Your task to perform on an android device: check battery use Image 0: 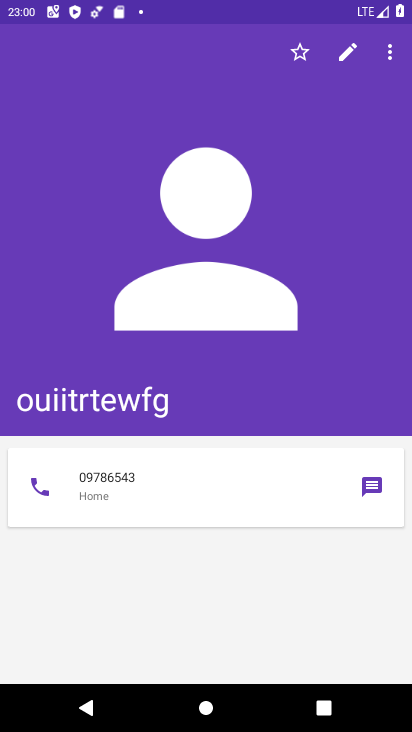
Step 0: press home button
Your task to perform on an android device: check battery use Image 1: 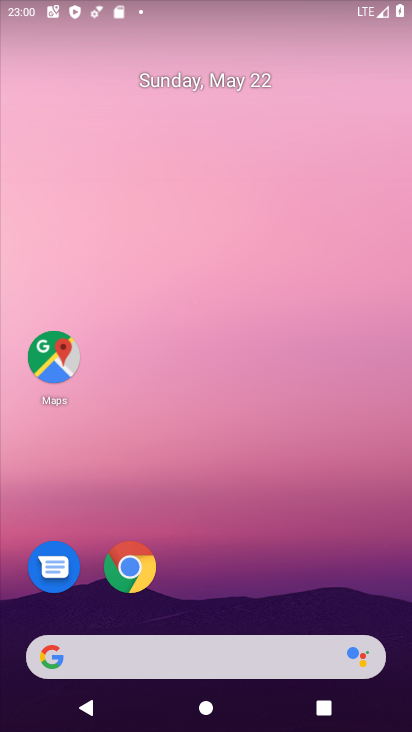
Step 1: drag from (364, 603) to (82, 4)
Your task to perform on an android device: check battery use Image 2: 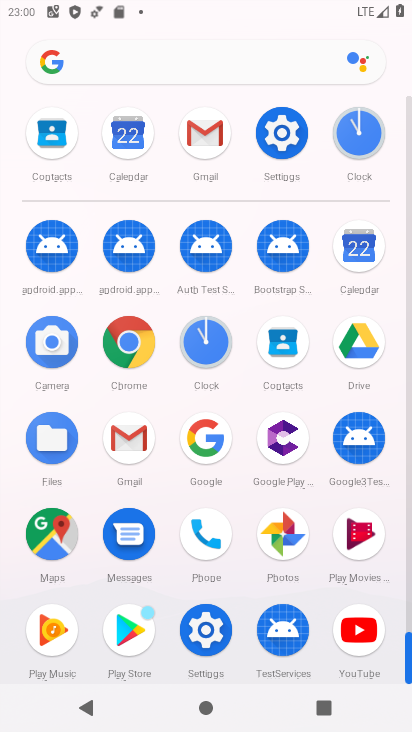
Step 2: click (201, 633)
Your task to perform on an android device: check battery use Image 3: 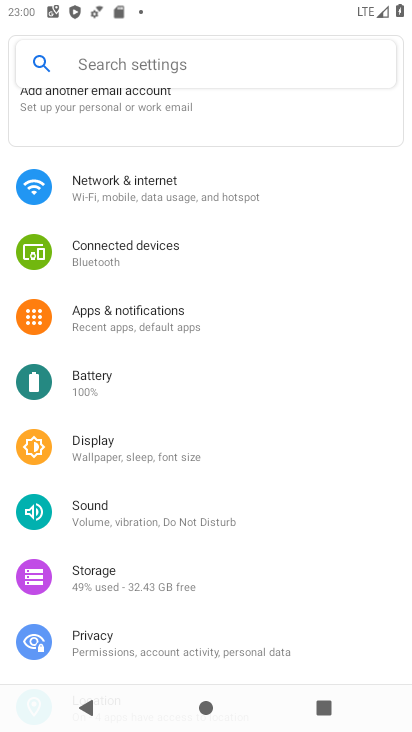
Step 3: click (95, 369)
Your task to perform on an android device: check battery use Image 4: 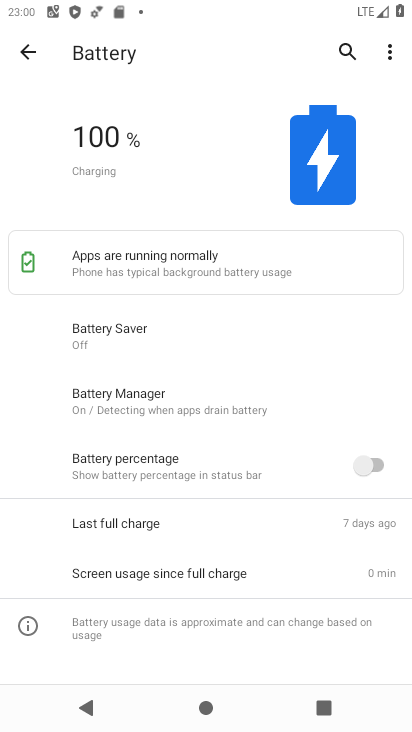
Step 4: click (389, 56)
Your task to perform on an android device: check battery use Image 5: 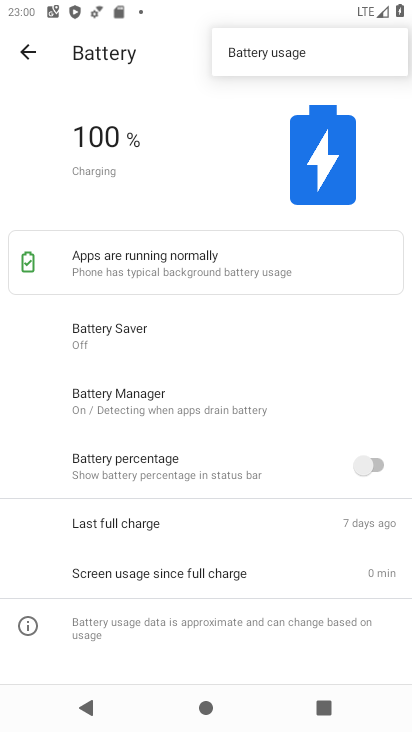
Step 5: click (259, 52)
Your task to perform on an android device: check battery use Image 6: 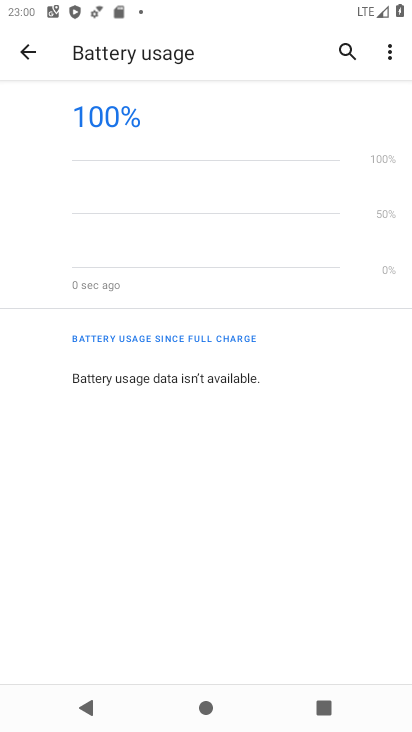
Step 6: task complete